Your task to perform on an android device: toggle priority inbox in the gmail app Image 0: 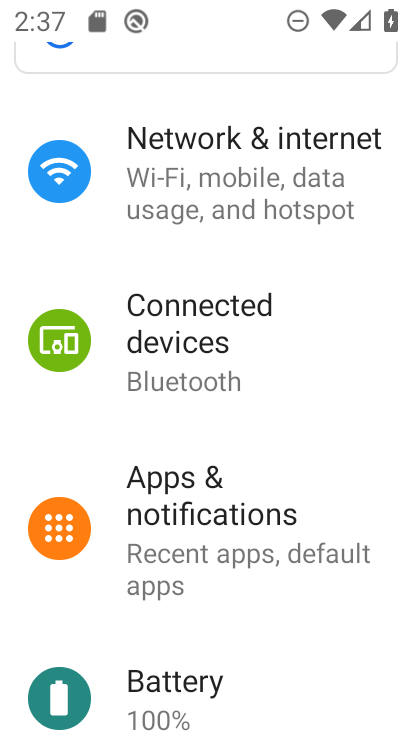
Step 0: press home button
Your task to perform on an android device: toggle priority inbox in the gmail app Image 1: 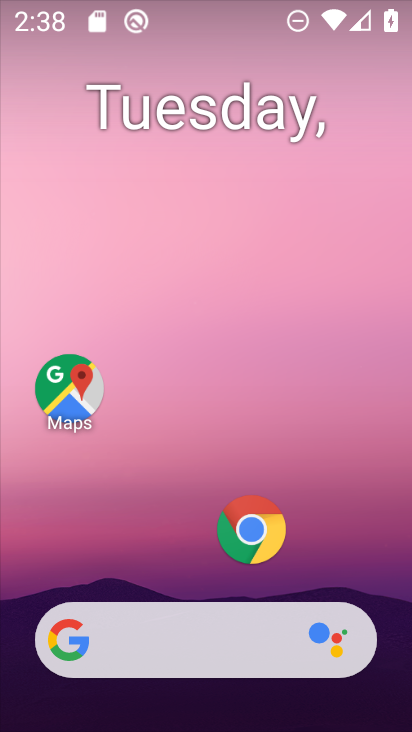
Step 1: drag from (263, 676) to (208, 0)
Your task to perform on an android device: toggle priority inbox in the gmail app Image 2: 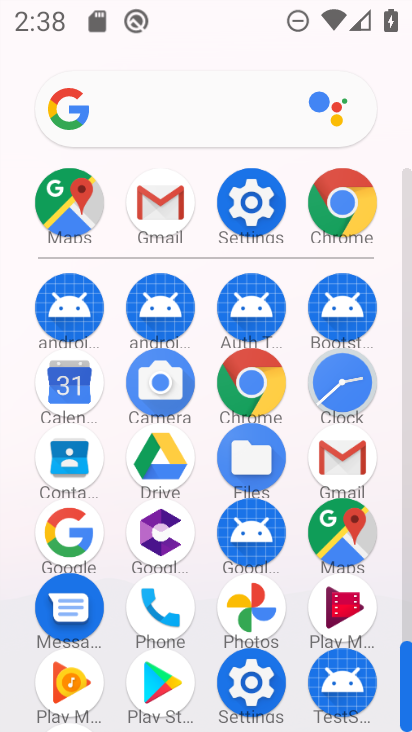
Step 2: click (154, 204)
Your task to perform on an android device: toggle priority inbox in the gmail app Image 3: 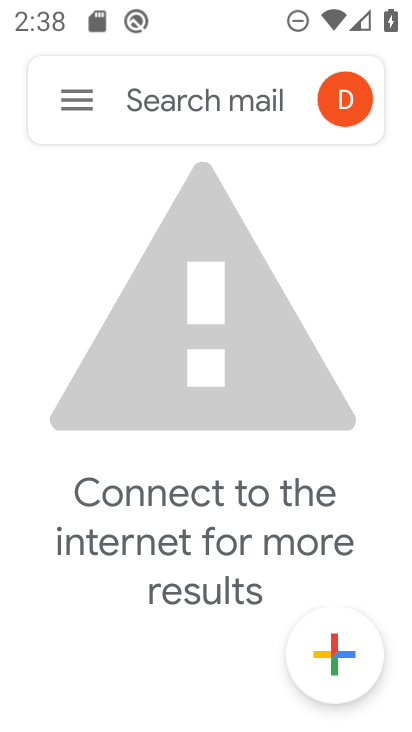
Step 3: click (86, 93)
Your task to perform on an android device: toggle priority inbox in the gmail app Image 4: 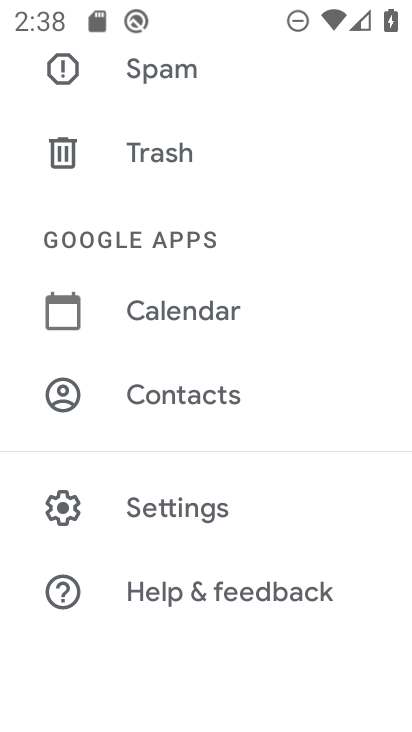
Step 4: click (193, 505)
Your task to perform on an android device: toggle priority inbox in the gmail app Image 5: 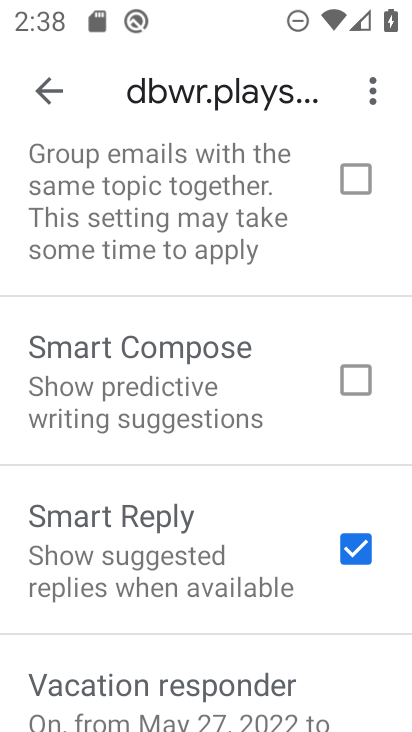
Step 5: drag from (103, 166) to (153, 629)
Your task to perform on an android device: toggle priority inbox in the gmail app Image 6: 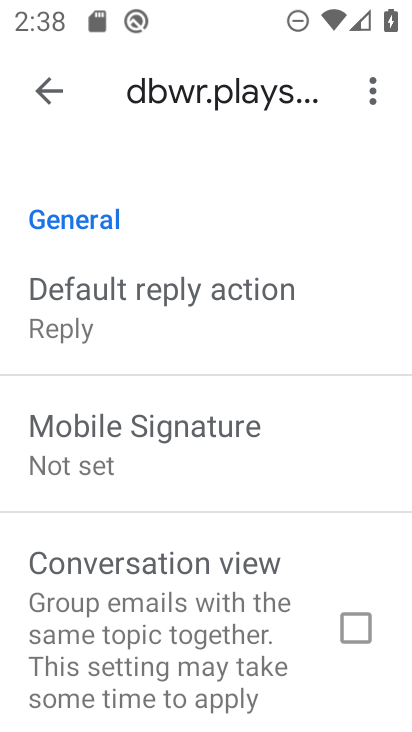
Step 6: drag from (191, 302) to (190, 654)
Your task to perform on an android device: toggle priority inbox in the gmail app Image 7: 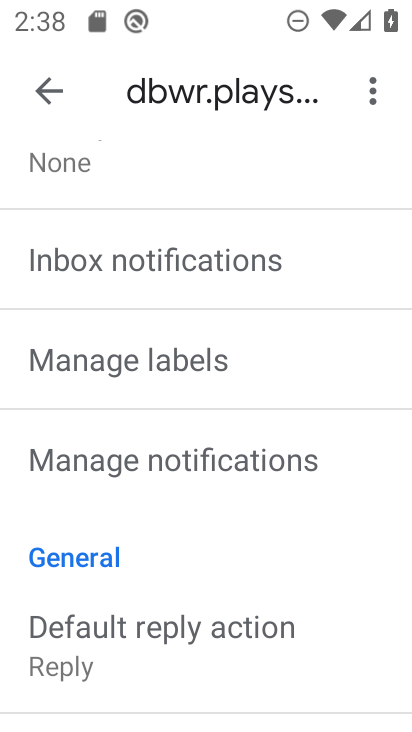
Step 7: drag from (218, 232) to (205, 586)
Your task to perform on an android device: toggle priority inbox in the gmail app Image 8: 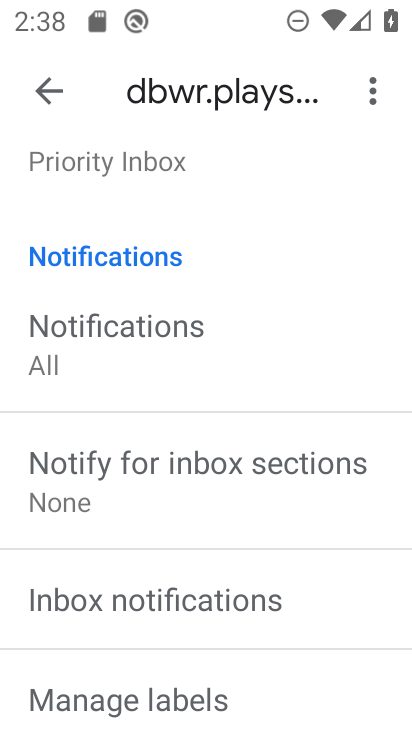
Step 8: click (152, 177)
Your task to perform on an android device: toggle priority inbox in the gmail app Image 9: 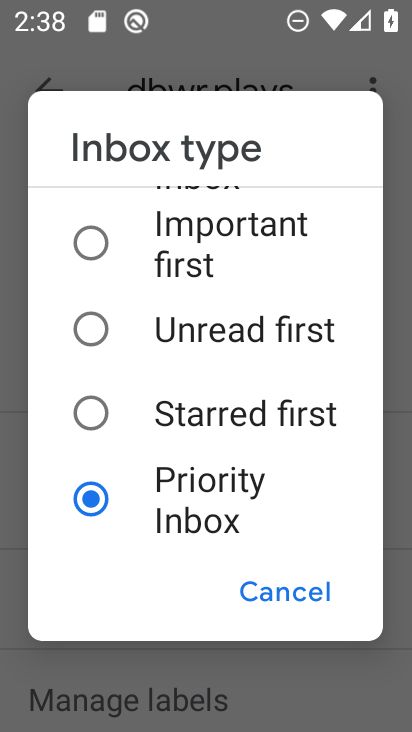
Step 9: task complete